Your task to perform on an android device: allow cookies in the chrome app Image 0: 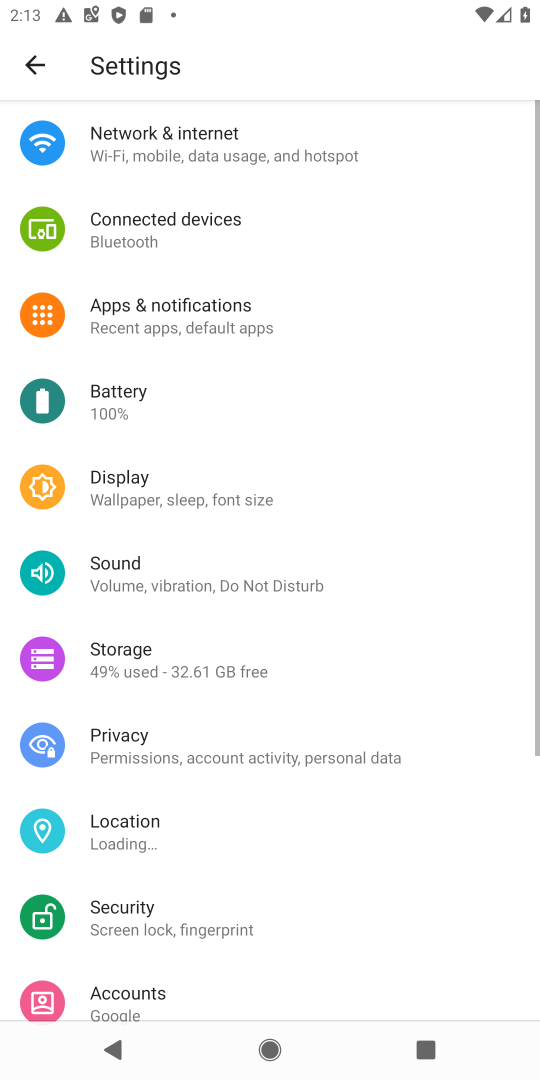
Step 0: press back button
Your task to perform on an android device: allow cookies in the chrome app Image 1: 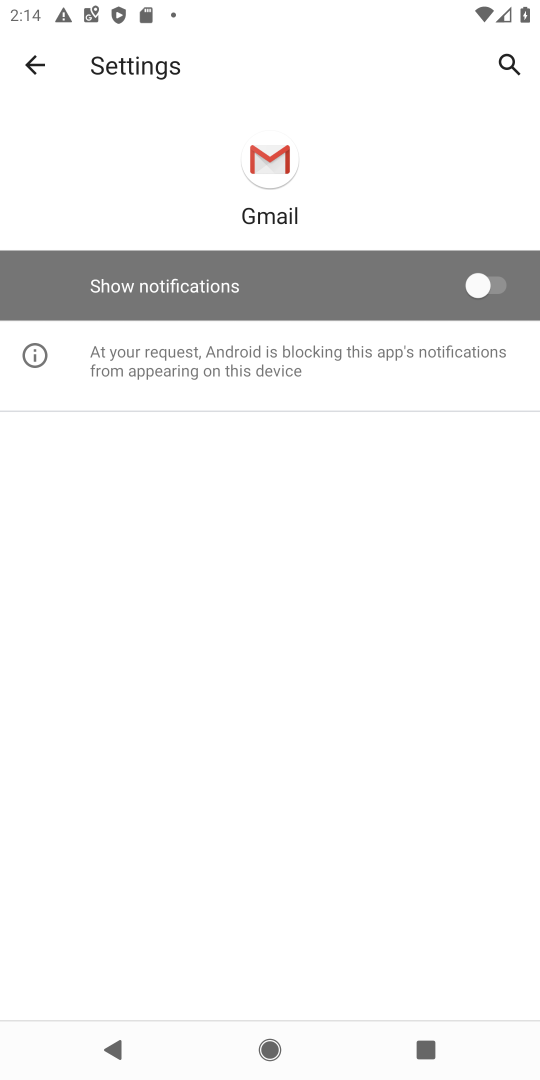
Step 1: press back button
Your task to perform on an android device: allow cookies in the chrome app Image 2: 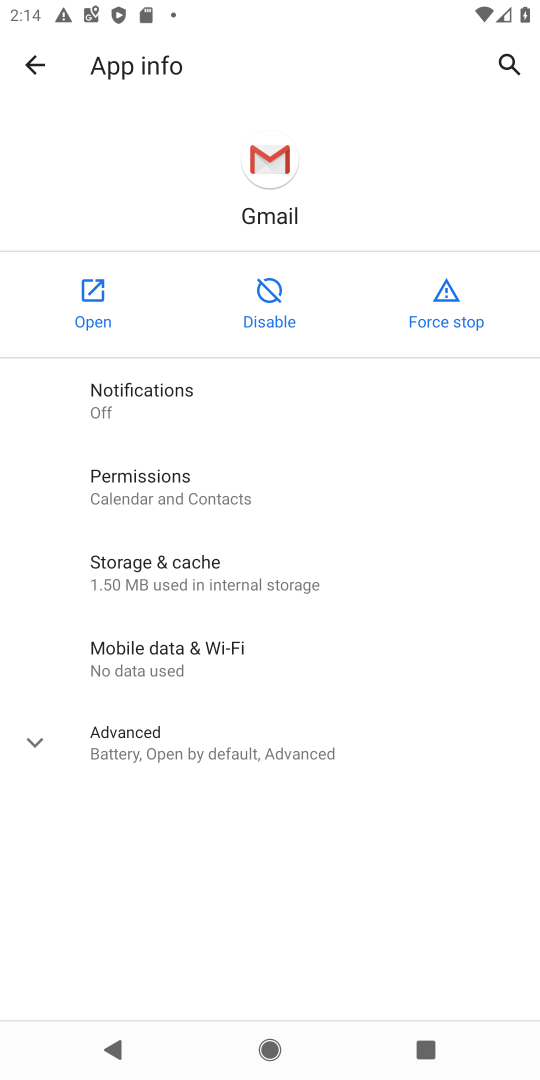
Step 2: press back button
Your task to perform on an android device: allow cookies in the chrome app Image 3: 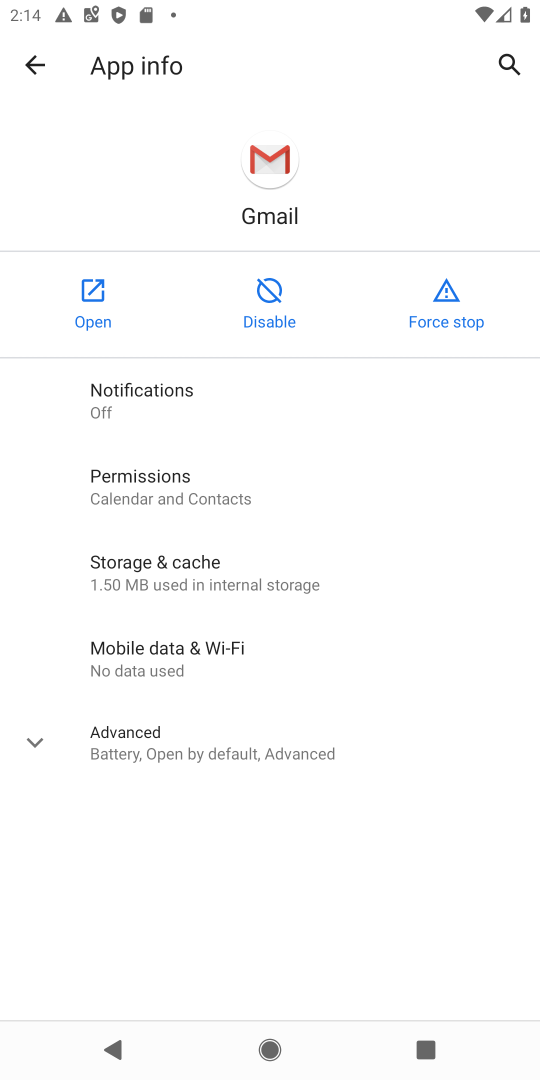
Step 3: press back button
Your task to perform on an android device: allow cookies in the chrome app Image 4: 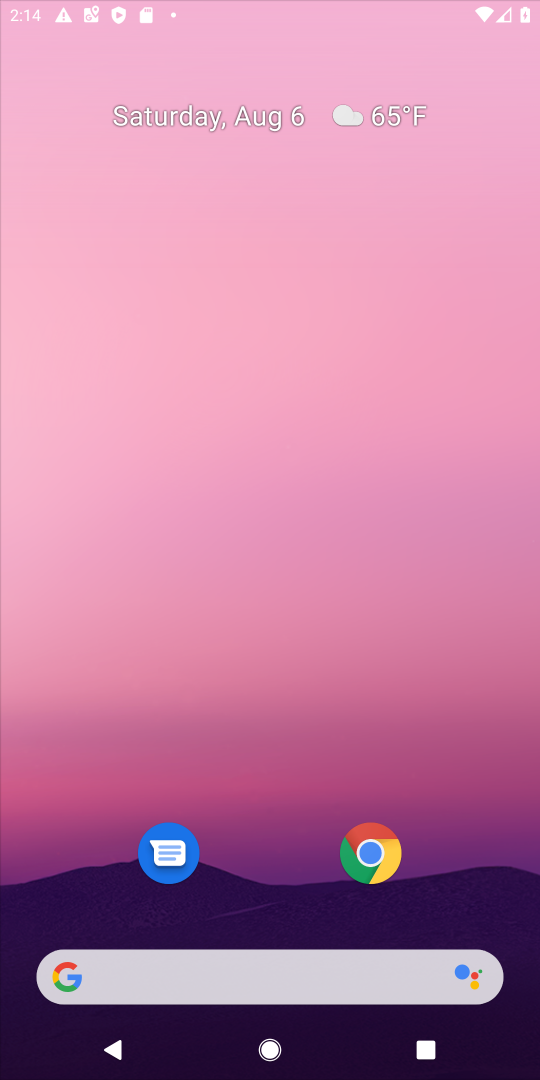
Step 4: press back button
Your task to perform on an android device: allow cookies in the chrome app Image 5: 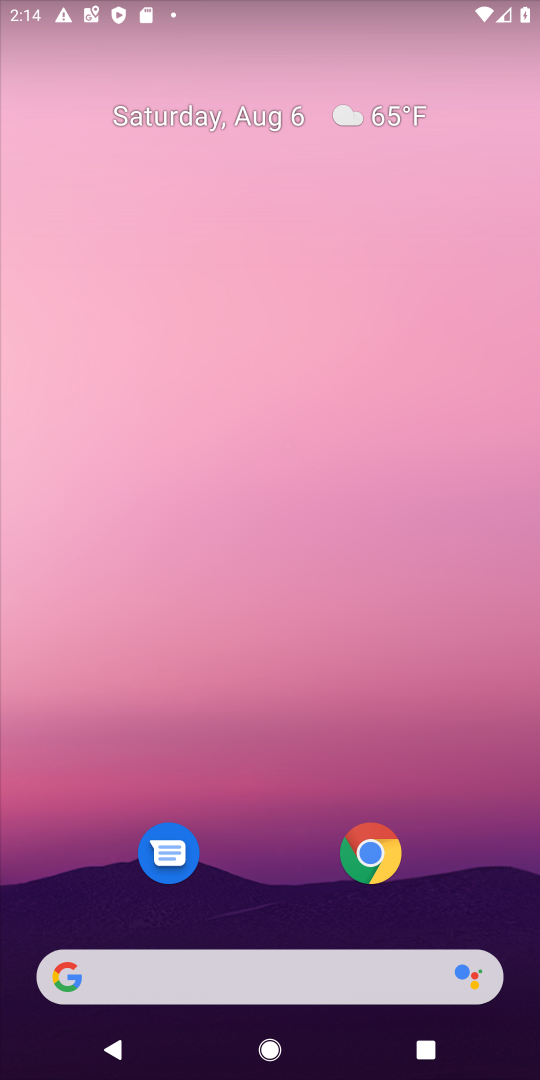
Step 5: click (377, 848)
Your task to perform on an android device: allow cookies in the chrome app Image 6: 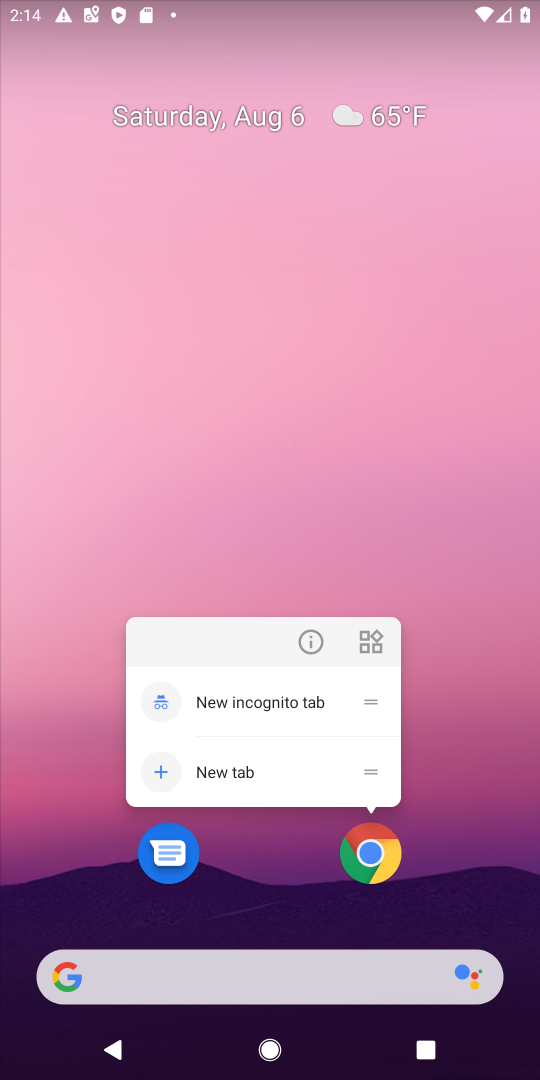
Step 6: click (380, 844)
Your task to perform on an android device: allow cookies in the chrome app Image 7: 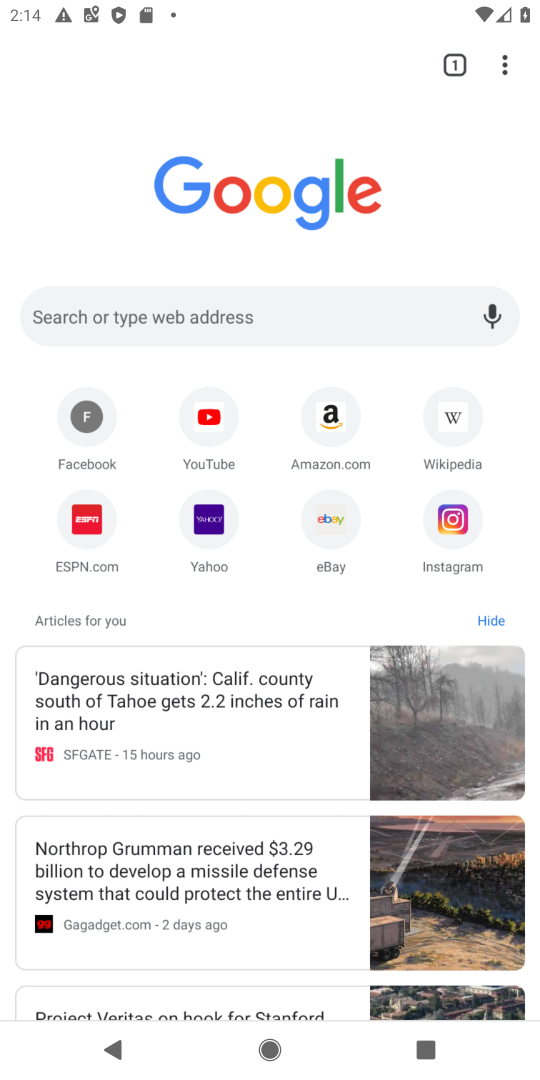
Step 7: drag from (506, 55) to (332, 623)
Your task to perform on an android device: allow cookies in the chrome app Image 8: 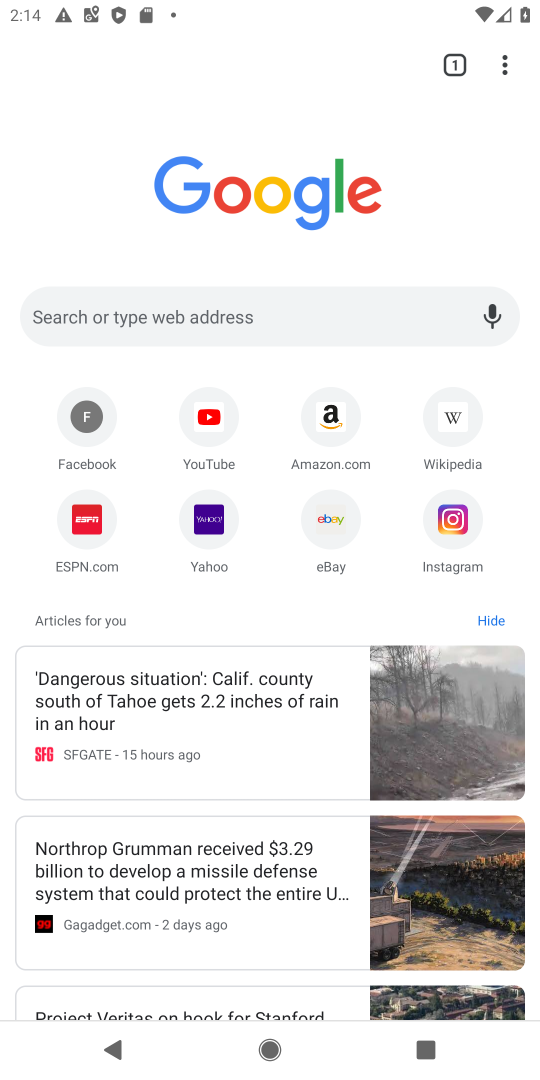
Step 8: drag from (501, 64) to (322, 532)
Your task to perform on an android device: allow cookies in the chrome app Image 9: 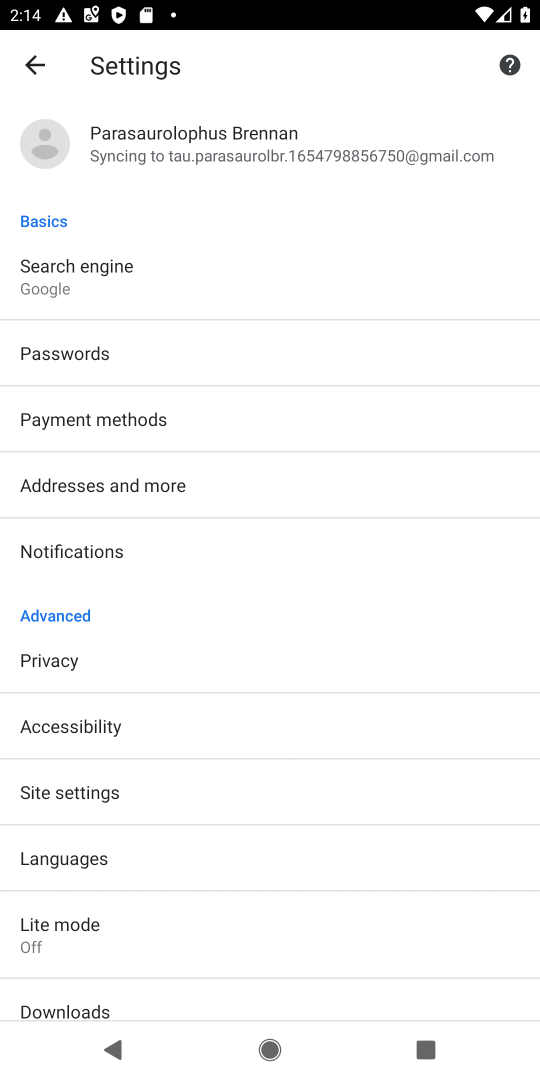
Step 9: click (121, 802)
Your task to perform on an android device: allow cookies in the chrome app Image 10: 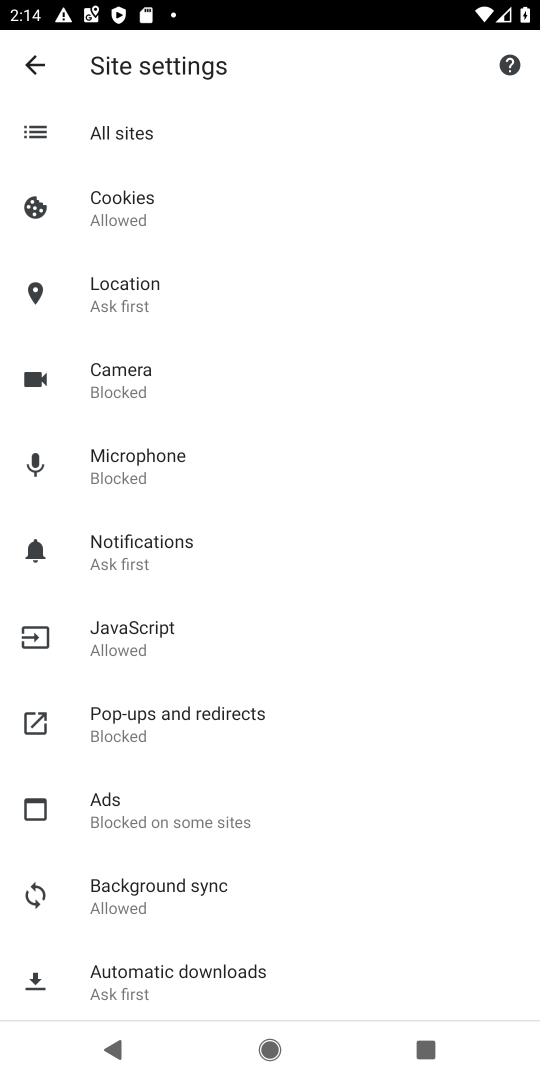
Step 10: click (146, 214)
Your task to perform on an android device: allow cookies in the chrome app Image 11: 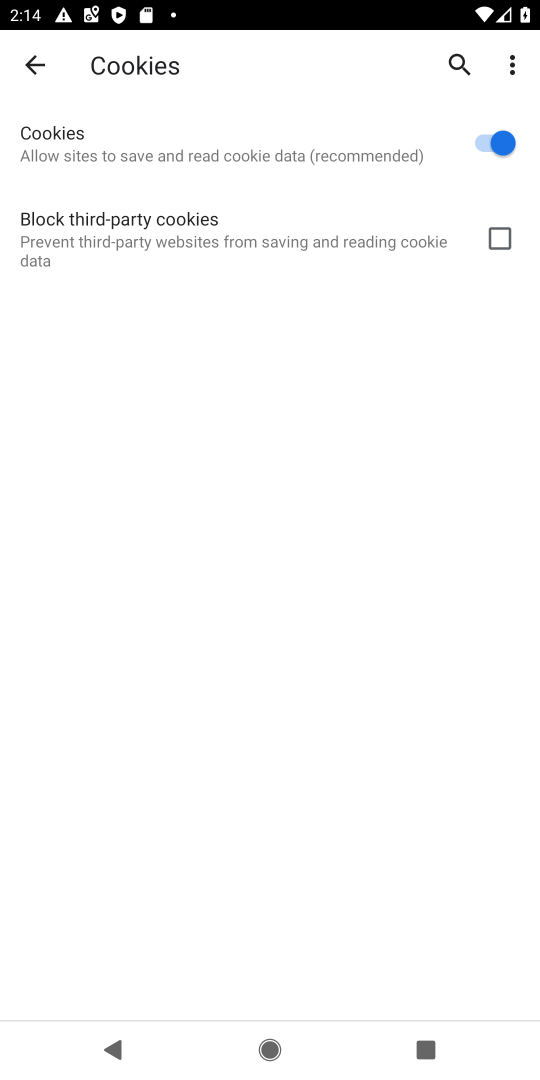
Step 11: task complete